Your task to perform on an android device: Go to sound settings Image 0: 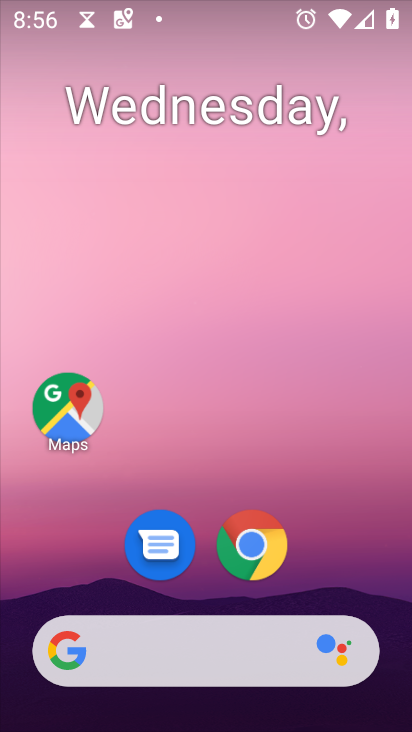
Step 0: press home button
Your task to perform on an android device: Go to sound settings Image 1: 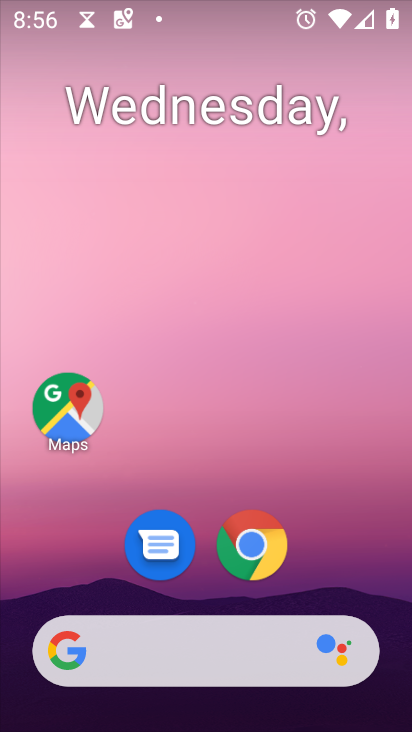
Step 1: drag from (157, 647) to (286, 30)
Your task to perform on an android device: Go to sound settings Image 2: 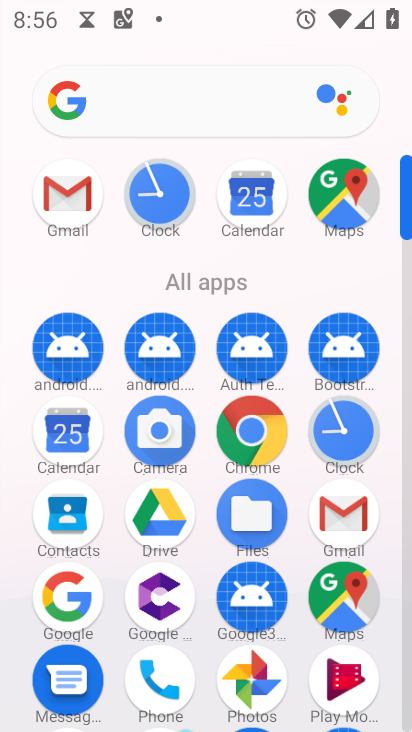
Step 2: drag from (198, 633) to (311, 169)
Your task to perform on an android device: Go to sound settings Image 3: 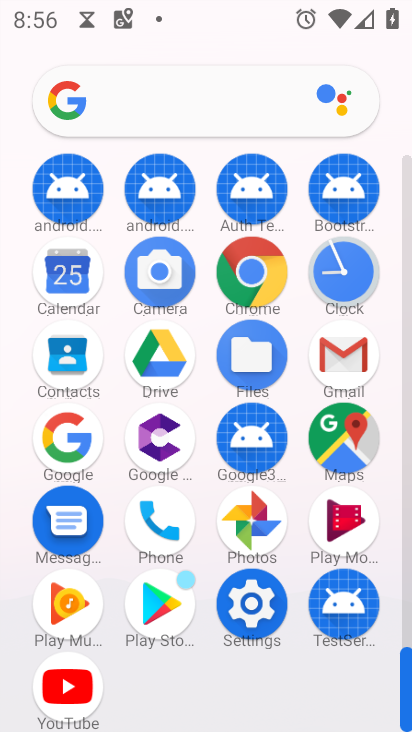
Step 3: click (247, 611)
Your task to perform on an android device: Go to sound settings Image 4: 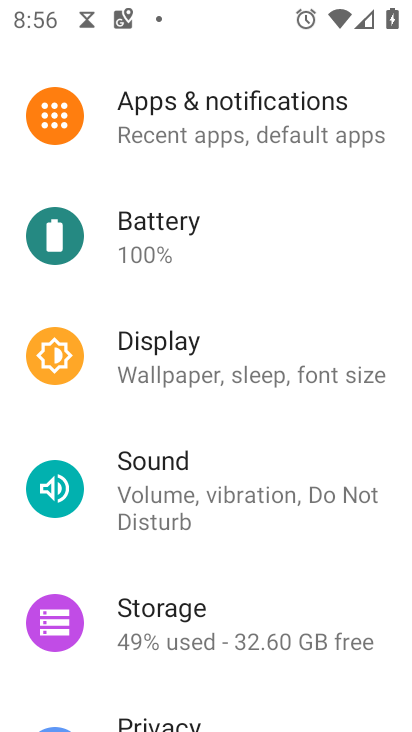
Step 4: click (177, 490)
Your task to perform on an android device: Go to sound settings Image 5: 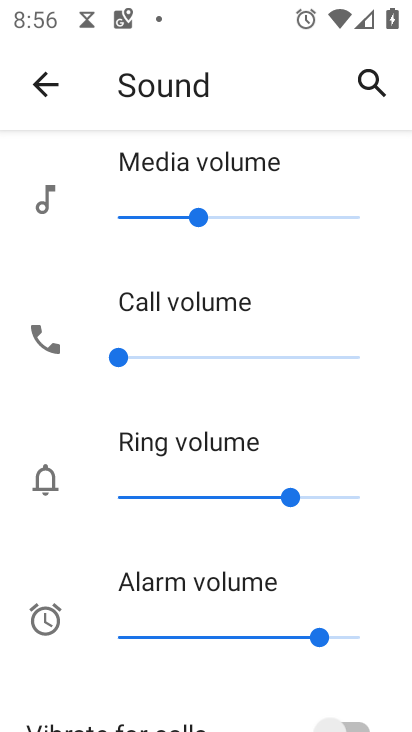
Step 5: task complete